Your task to perform on an android device: Search for seafood restaurants on Google Maps Image 0: 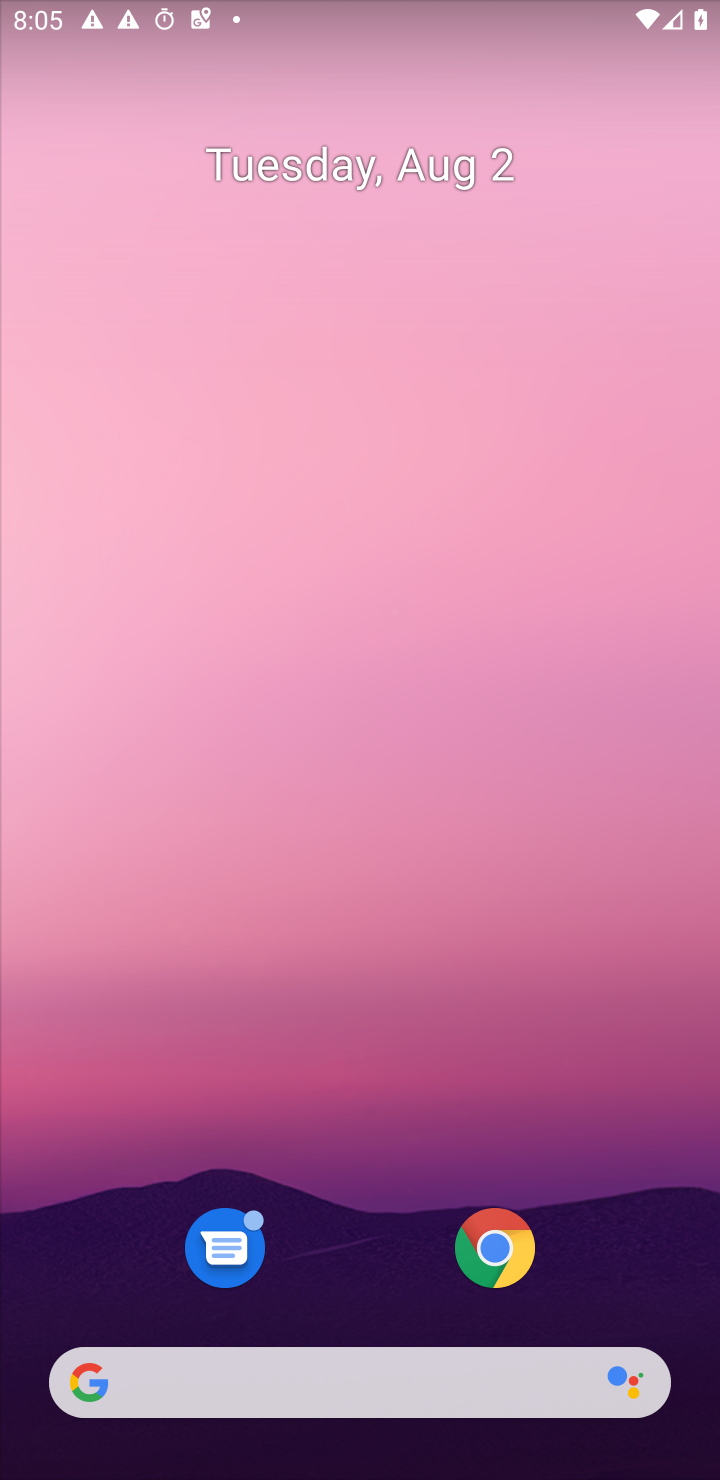
Step 0: drag from (373, 1186) to (602, 27)
Your task to perform on an android device: Search for seafood restaurants on Google Maps Image 1: 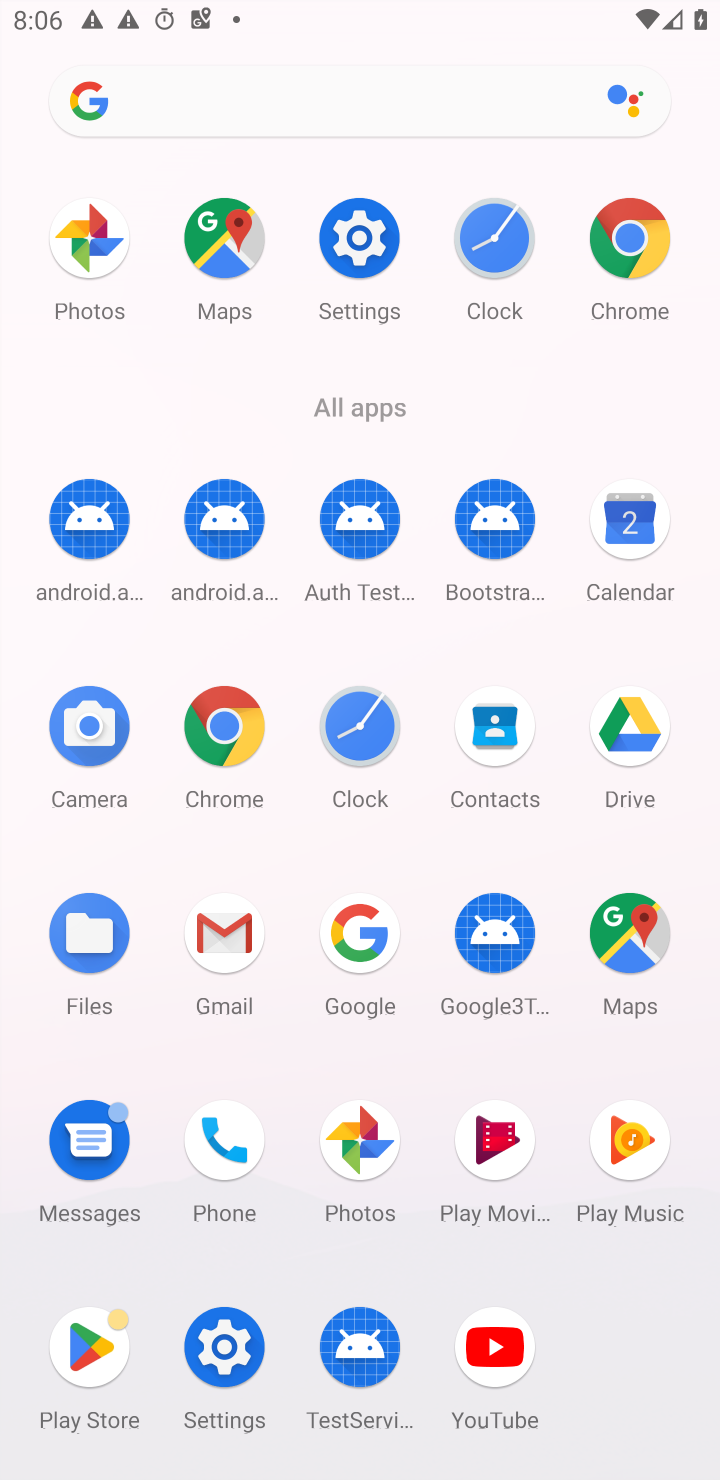
Step 1: click (620, 921)
Your task to perform on an android device: Search for seafood restaurants on Google Maps Image 2: 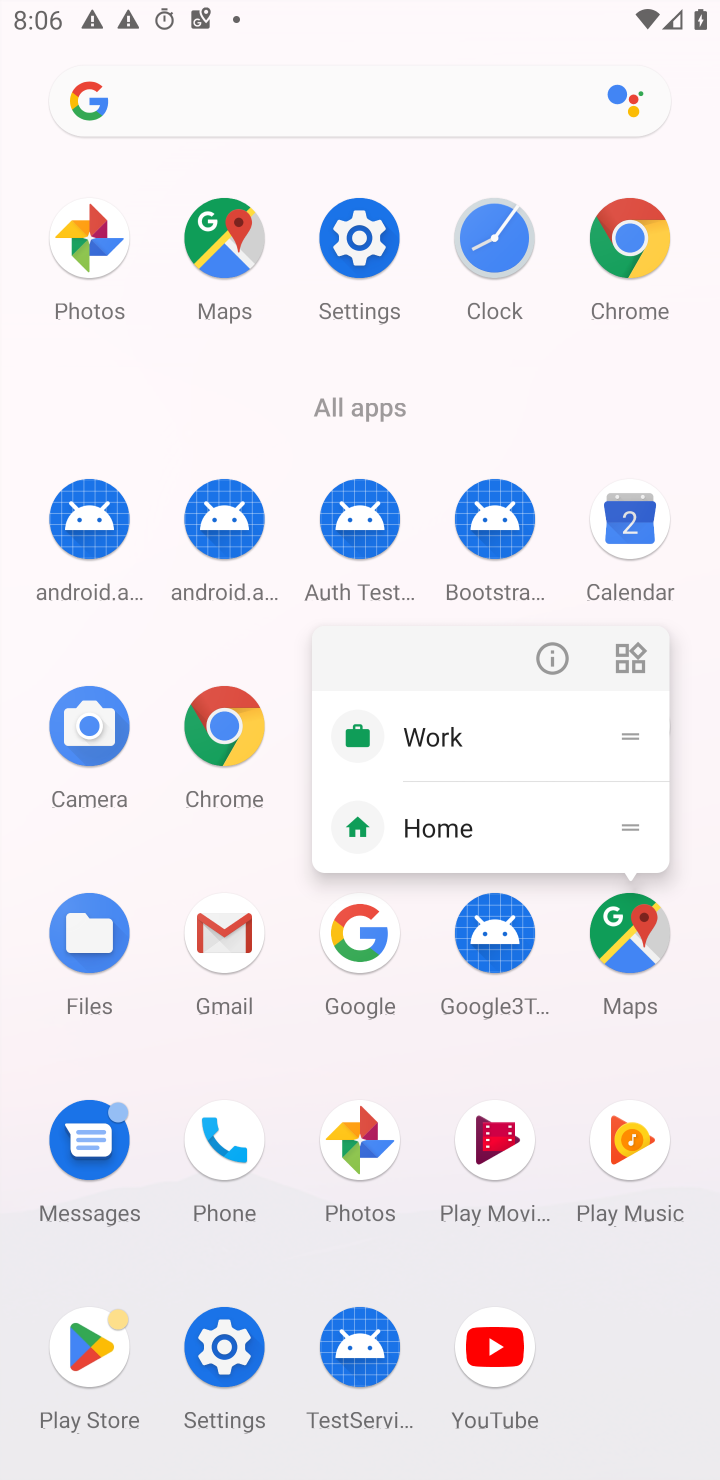
Step 2: click (546, 642)
Your task to perform on an android device: Search for seafood restaurants on Google Maps Image 3: 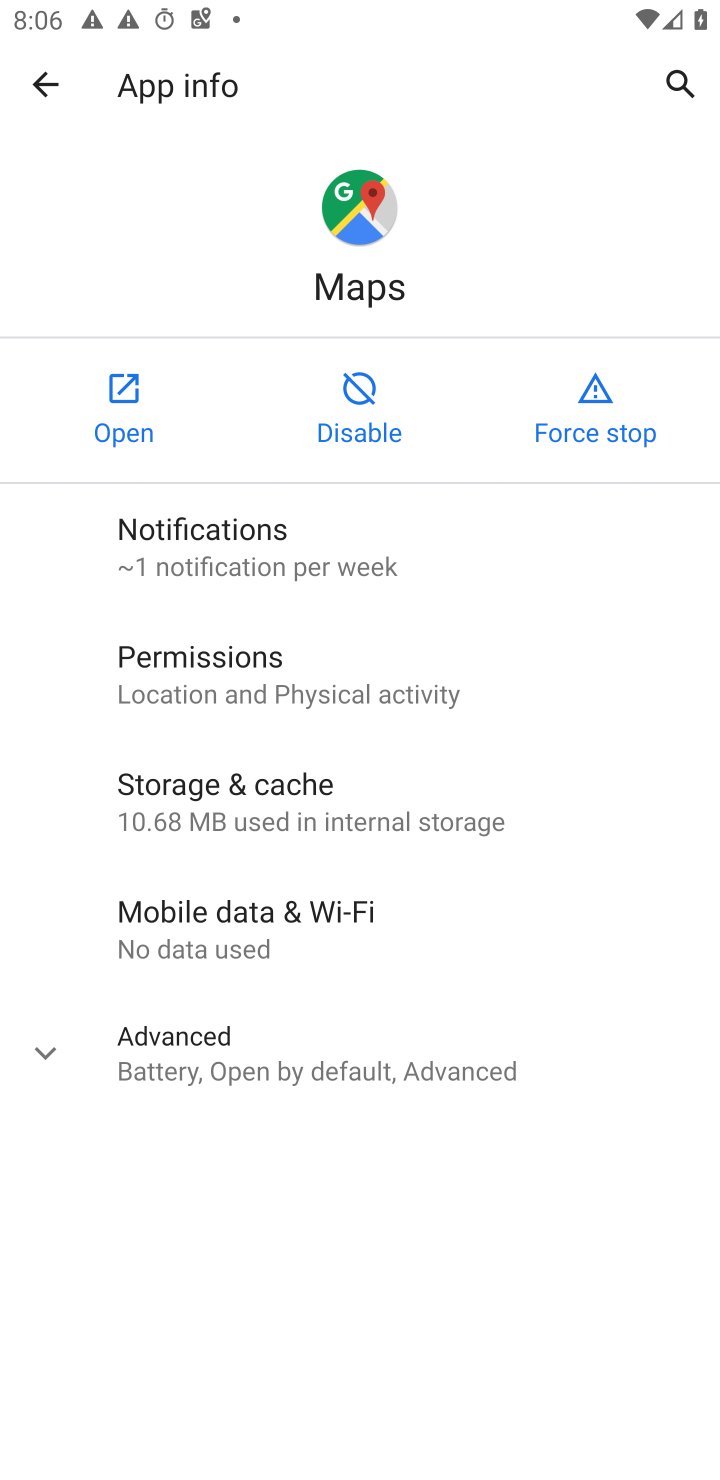
Step 3: click (133, 396)
Your task to perform on an android device: Search for seafood restaurants on Google Maps Image 4: 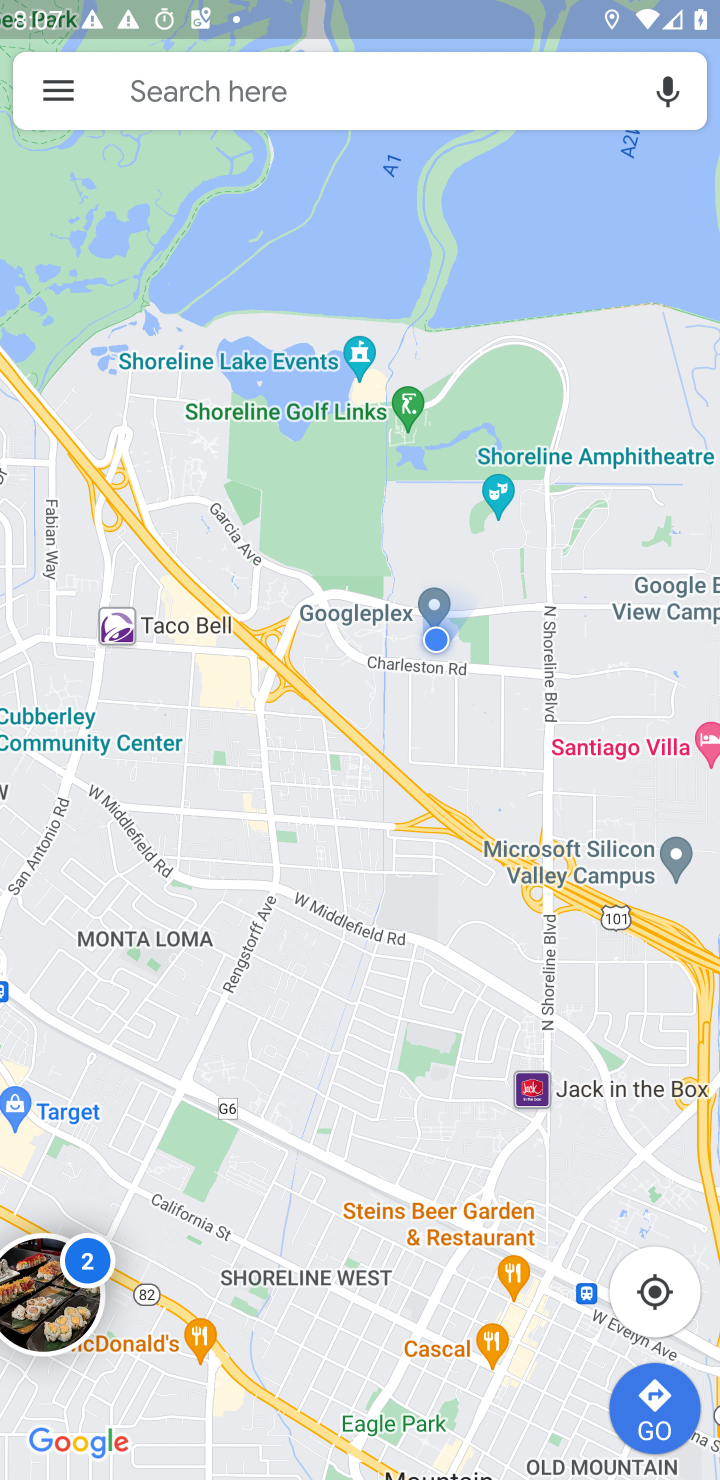
Step 4: click (340, 85)
Your task to perform on an android device: Search for seafood restaurants on Google Maps Image 5: 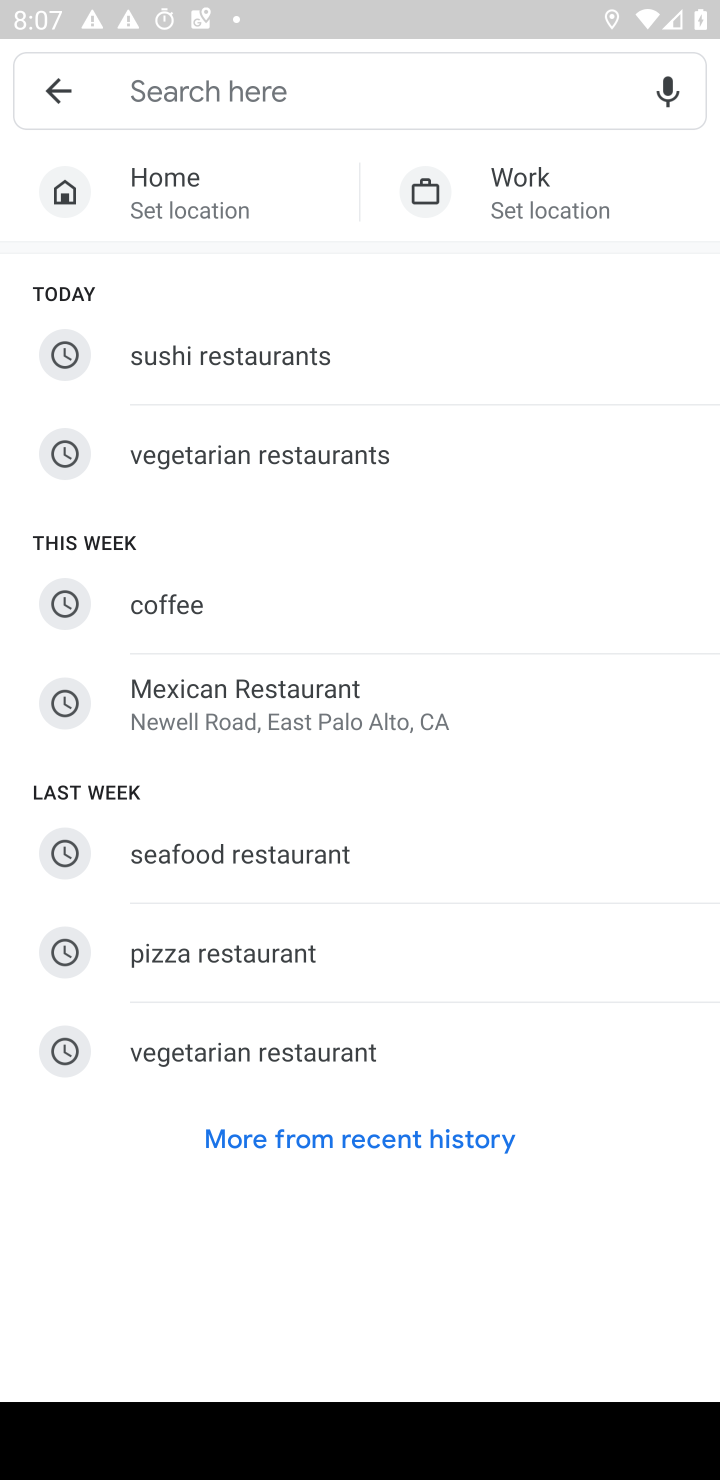
Step 5: type "seafood restaurants"
Your task to perform on an android device: Search for seafood restaurants on Google Maps Image 6: 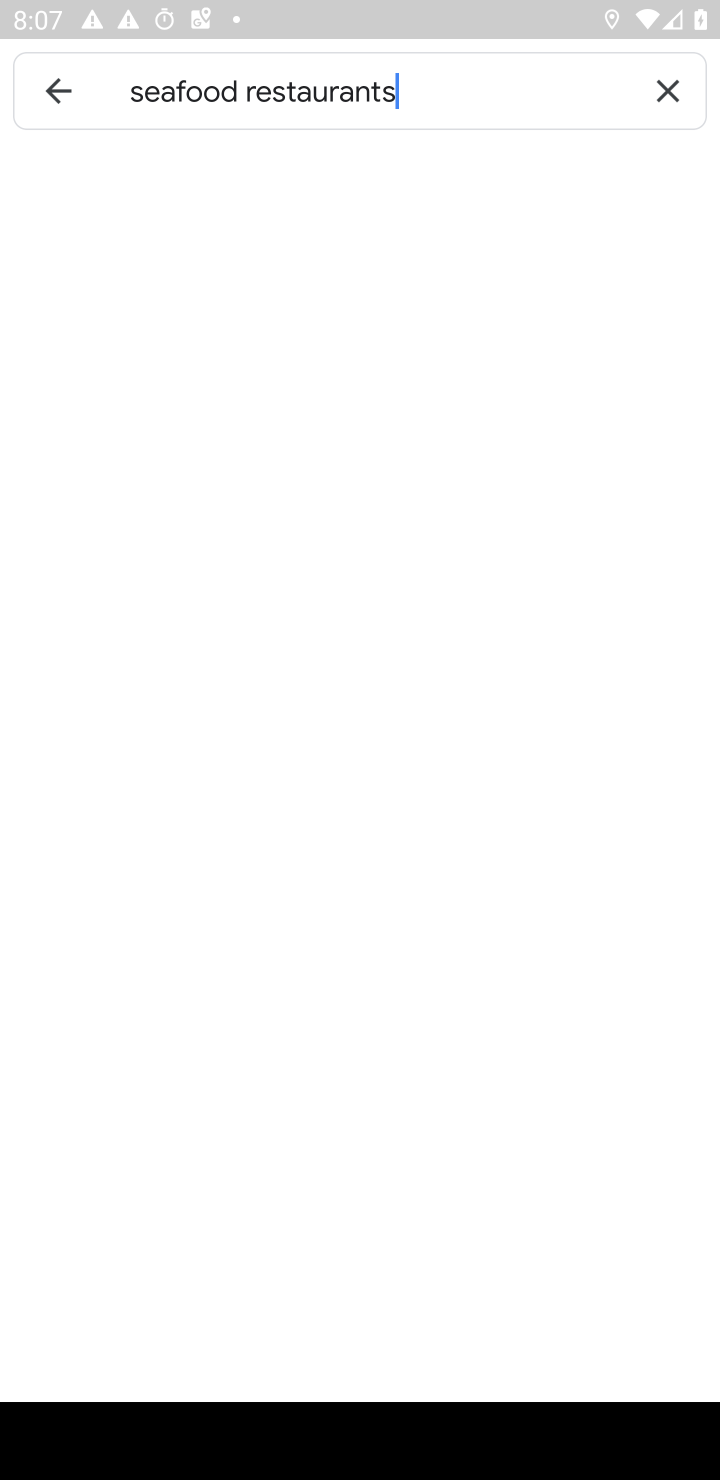
Step 6: click (268, 367)
Your task to perform on an android device: Search for seafood restaurants on Google Maps Image 7: 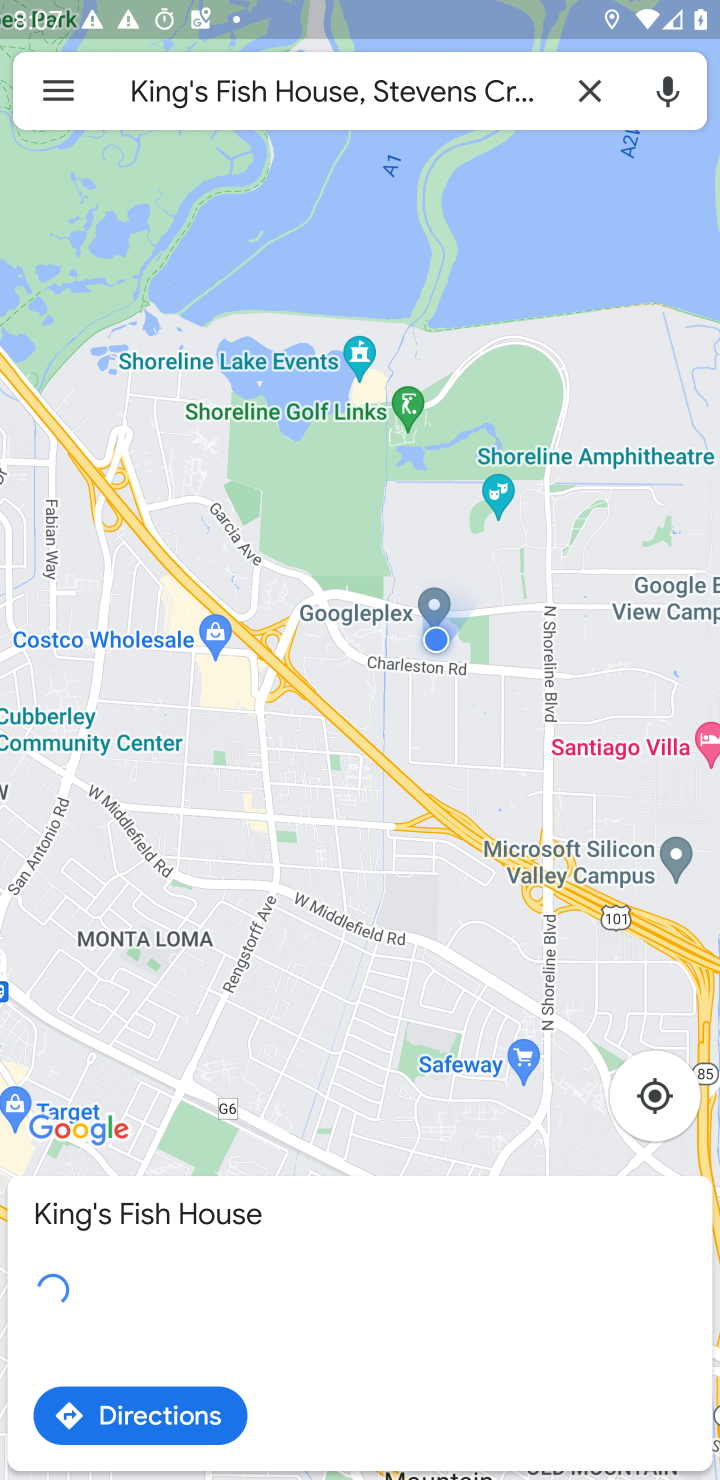
Step 7: click (302, 194)
Your task to perform on an android device: Search for seafood restaurants on Google Maps Image 8: 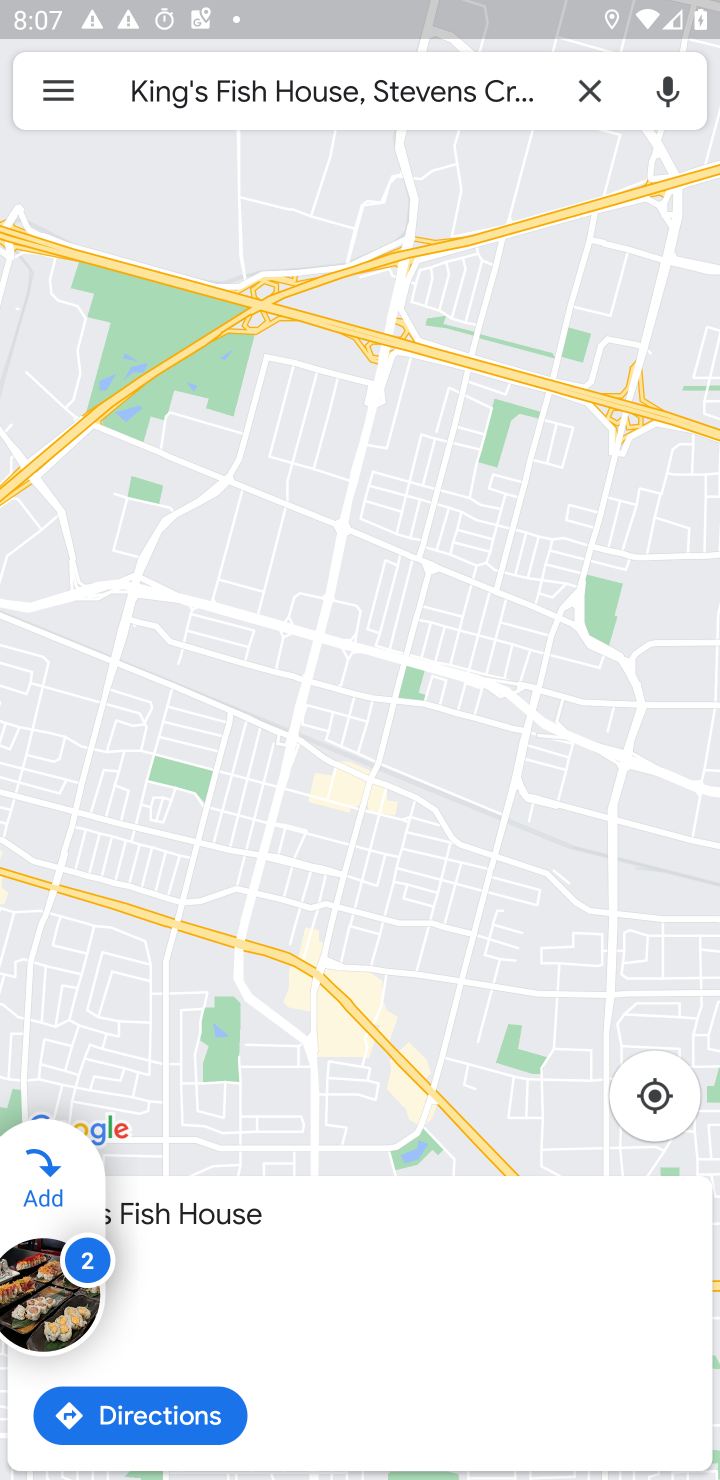
Step 8: click (590, 78)
Your task to perform on an android device: Search for seafood restaurants on Google Maps Image 9: 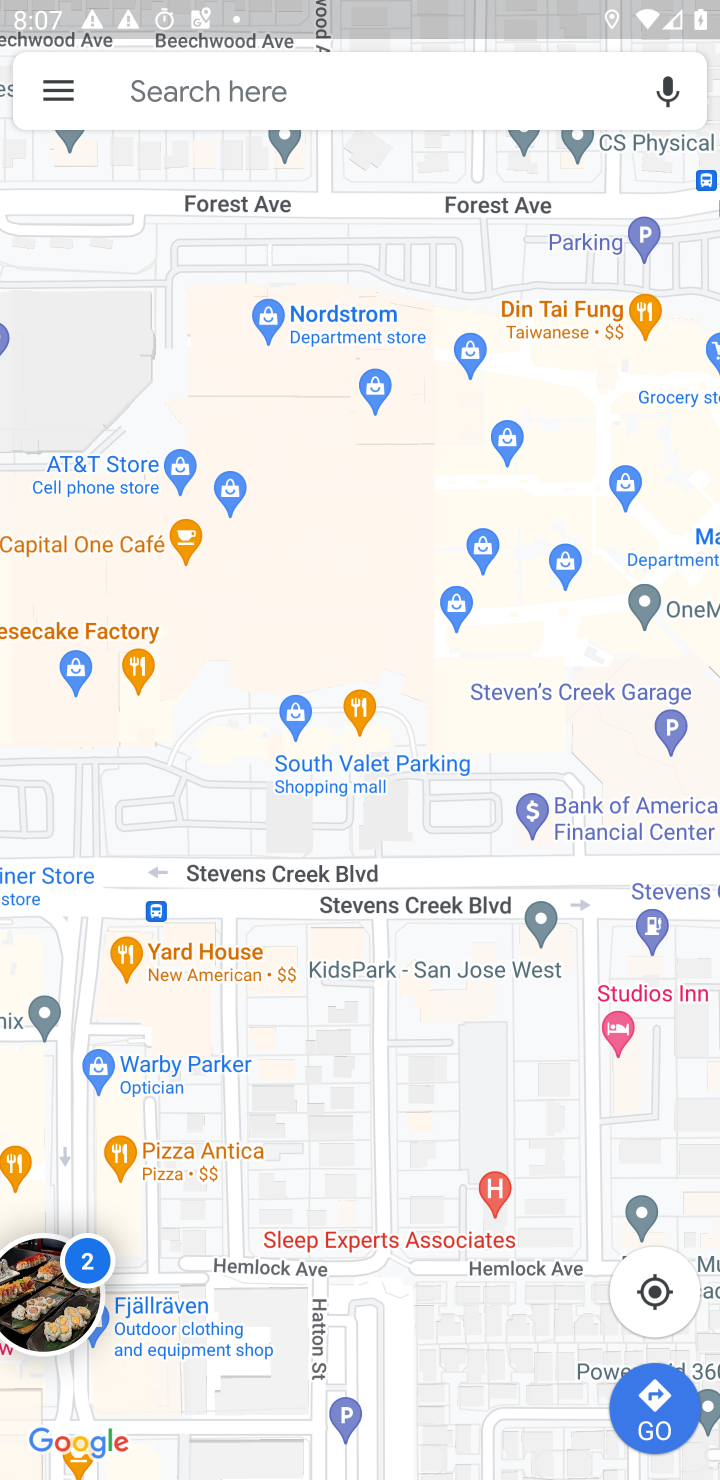
Step 9: click (265, 85)
Your task to perform on an android device: Search for seafood restaurants on Google Maps Image 10: 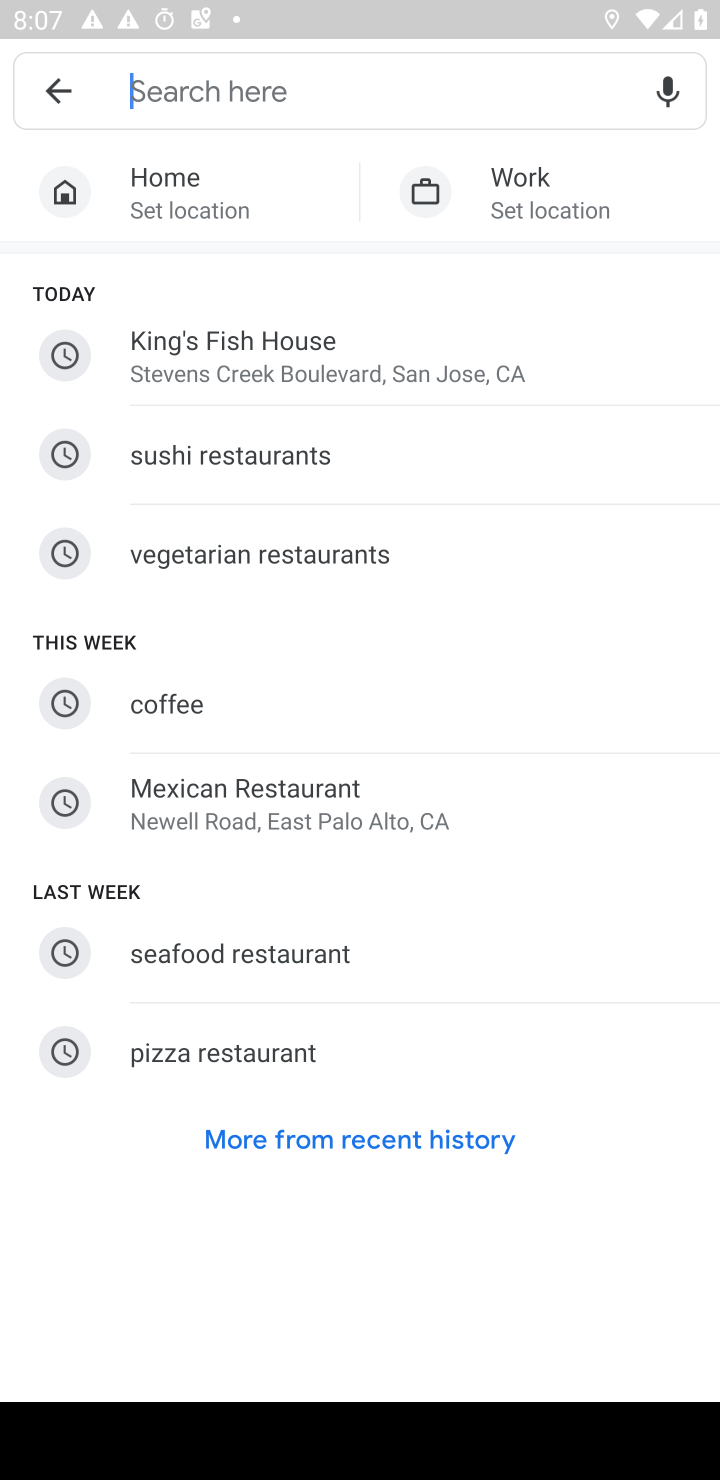
Step 10: type "seafood restaurants"
Your task to perform on an android device: Search for seafood restaurants on Google Maps Image 11: 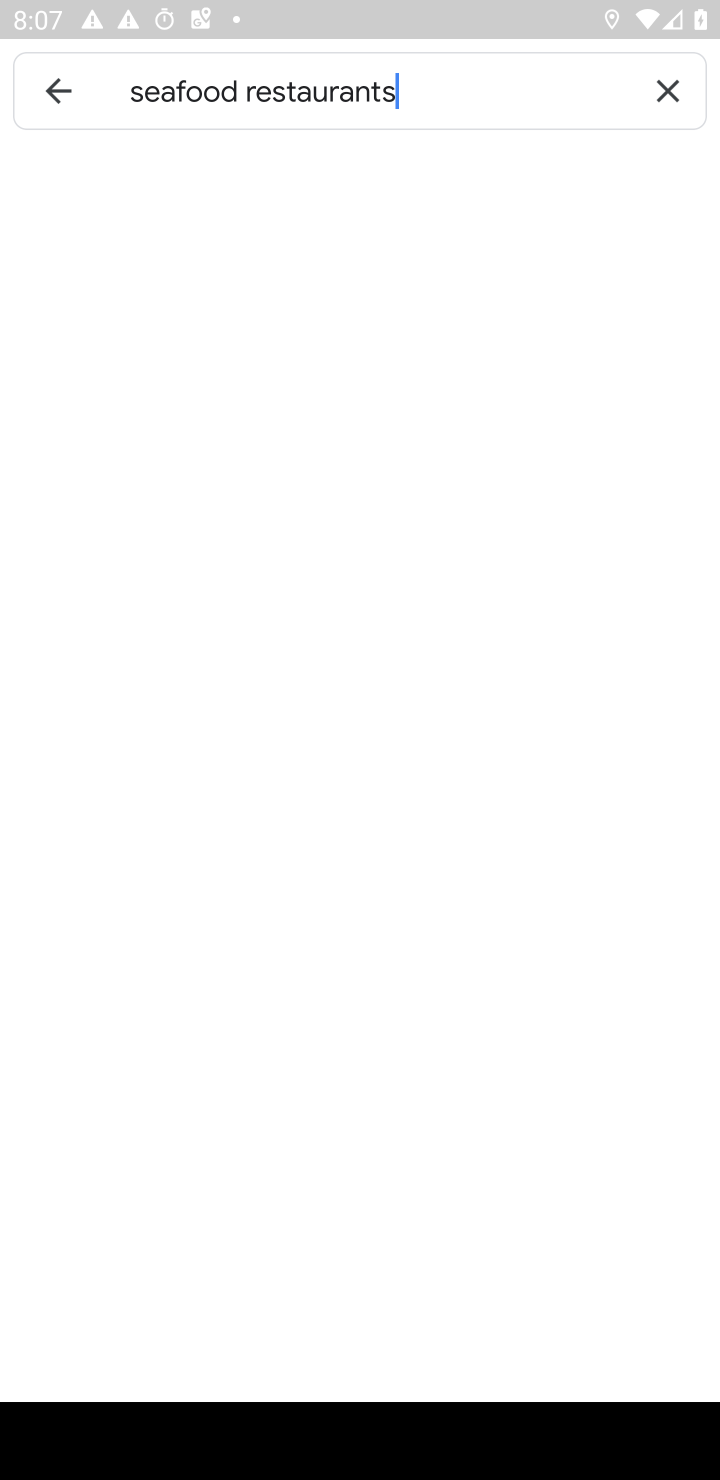
Step 11: type ""
Your task to perform on an android device: Search for seafood restaurants on Google Maps Image 12: 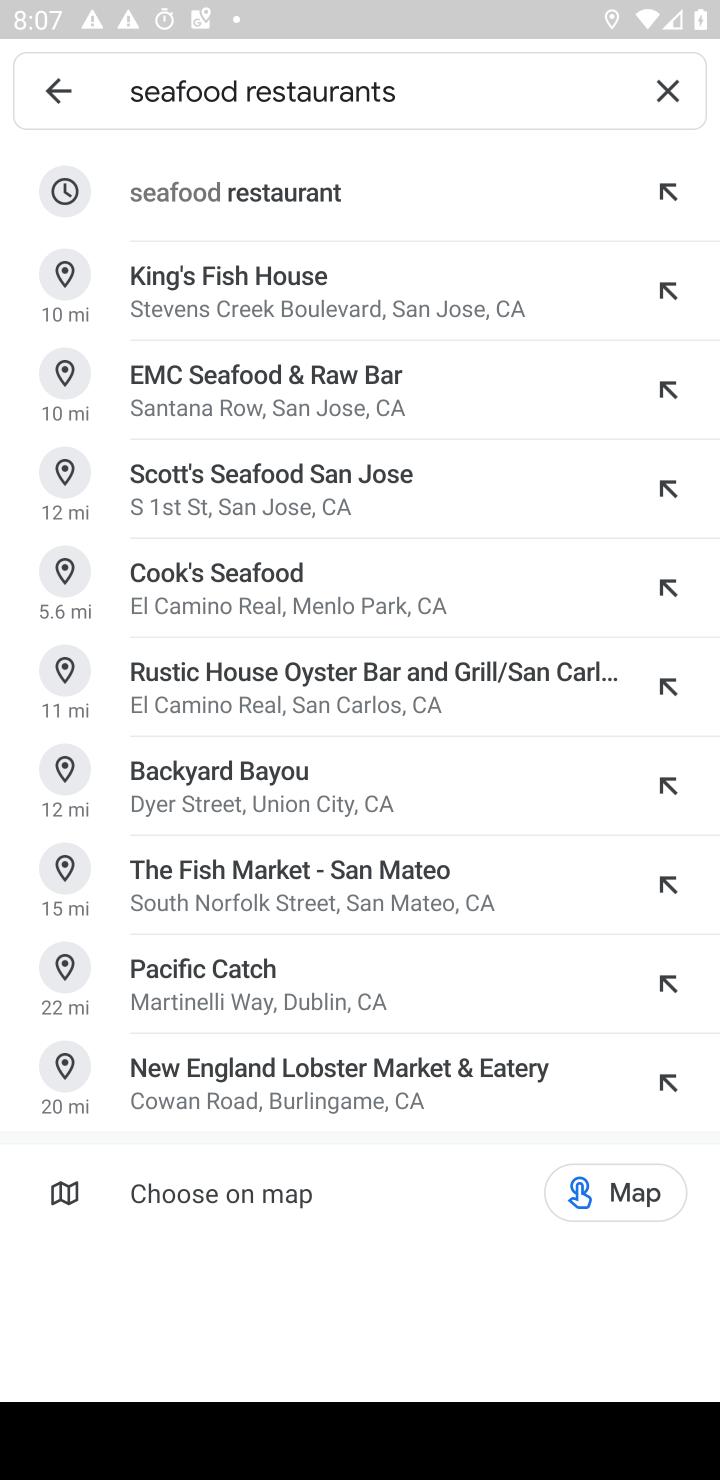
Step 12: click (263, 216)
Your task to perform on an android device: Search for seafood restaurants on Google Maps Image 13: 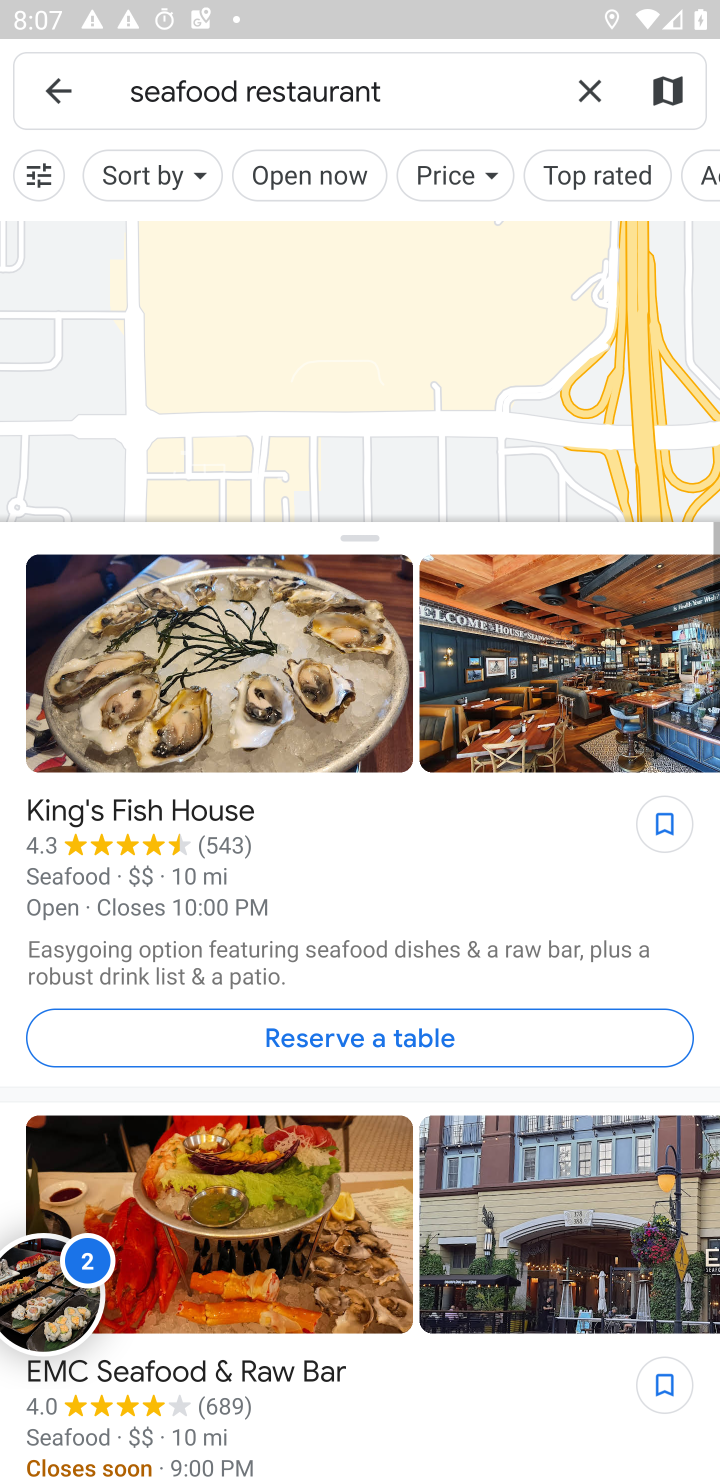
Step 13: task complete